Your task to perform on an android device: What is the recent news? Image 0: 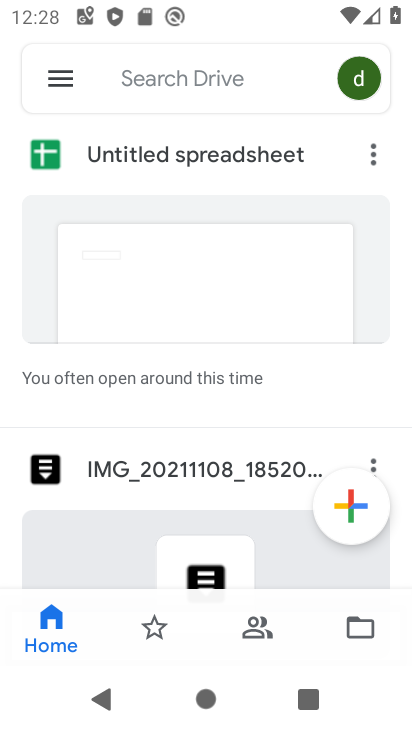
Step 0: press home button
Your task to perform on an android device: What is the recent news? Image 1: 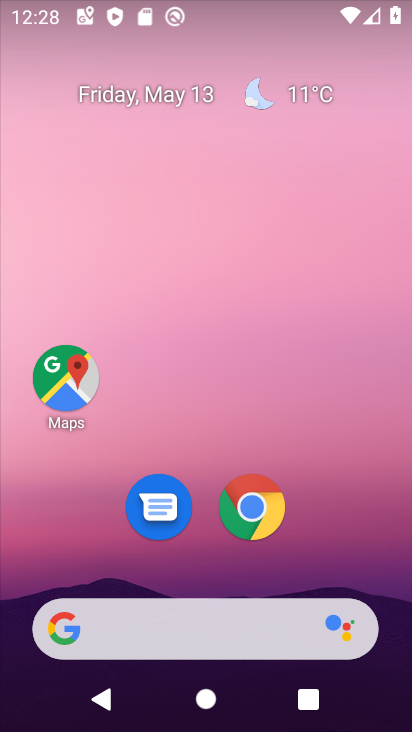
Step 1: click (214, 618)
Your task to perform on an android device: What is the recent news? Image 2: 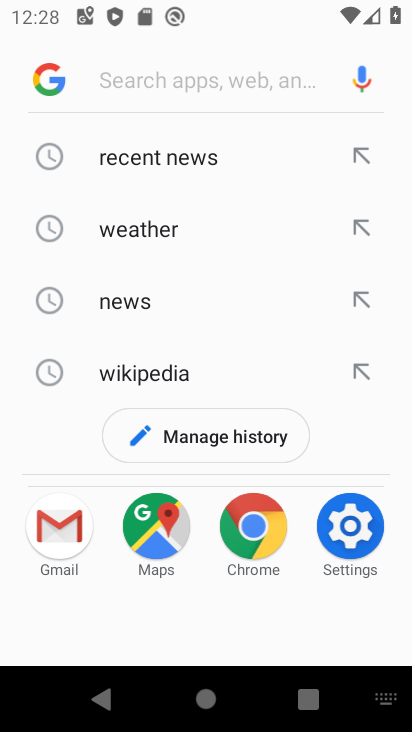
Step 2: click (102, 317)
Your task to perform on an android device: What is the recent news? Image 3: 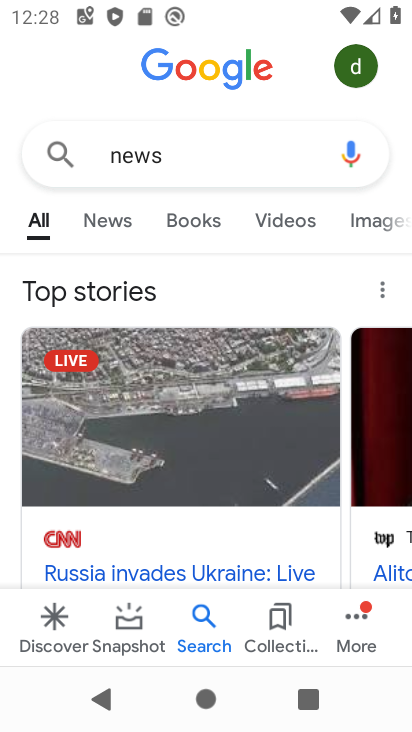
Step 3: click (112, 170)
Your task to perform on an android device: What is the recent news? Image 4: 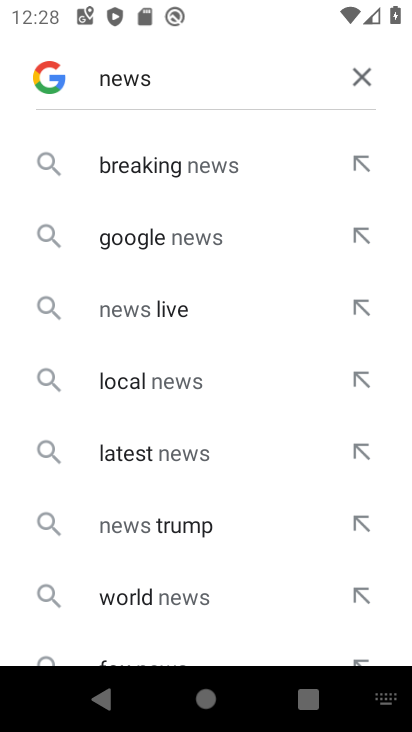
Step 4: click (165, 467)
Your task to perform on an android device: What is the recent news? Image 5: 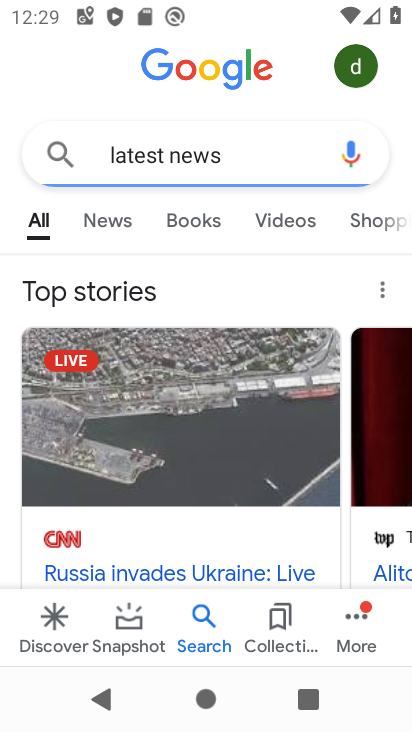
Step 5: click (96, 222)
Your task to perform on an android device: What is the recent news? Image 6: 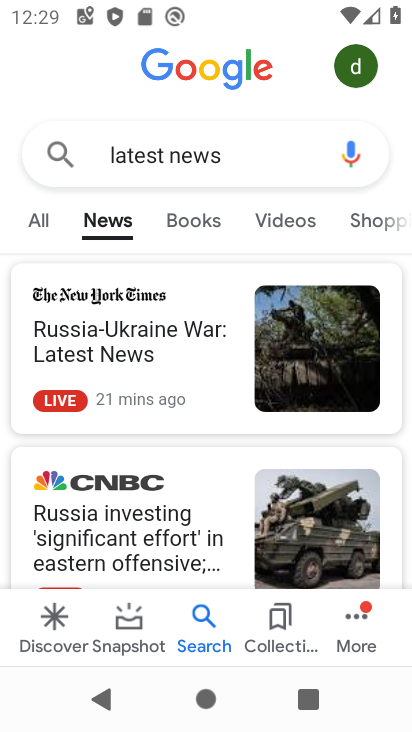
Step 6: task complete